Your task to perform on an android device: change notifications settings Image 0: 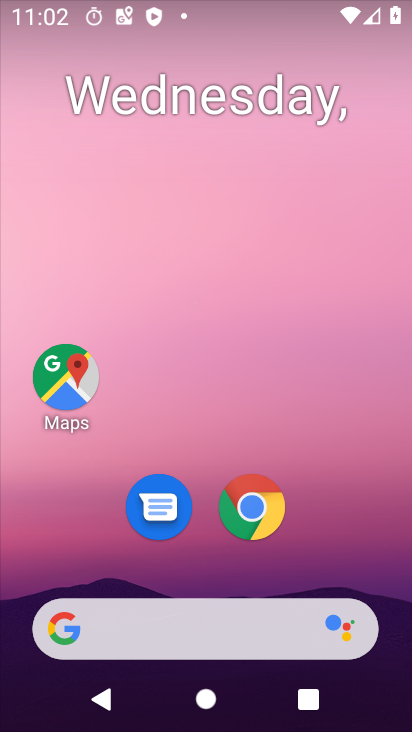
Step 0: drag from (234, 728) to (212, 68)
Your task to perform on an android device: change notifications settings Image 1: 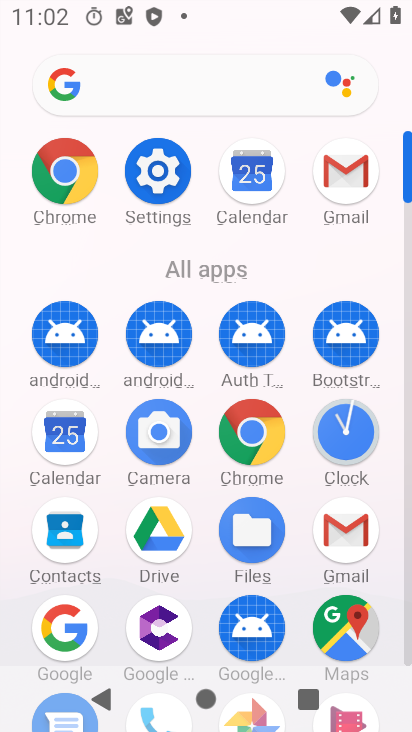
Step 1: click (163, 165)
Your task to perform on an android device: change notifications settings Image 2: 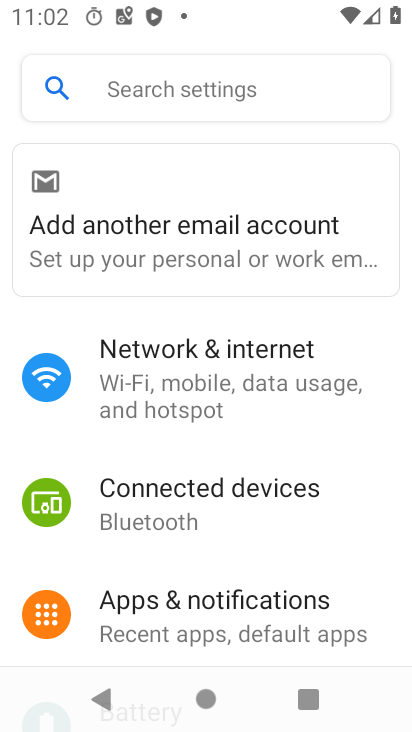
Step 2: click (180, 613)
Your task to perform on an android device: change notifications settings Image 3: 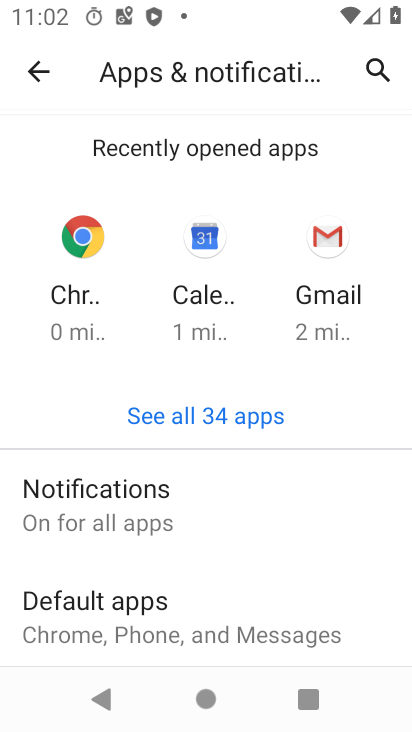
Step 3: click (111, 498)
Your task to perform on an android device: change notifications settings Image 4: 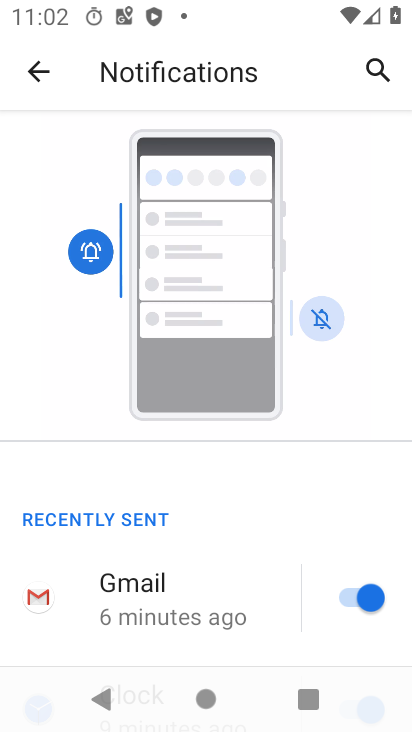
Step 4: drag from (176, 634) to (207, 263)
Your task to perform on an android device: change notifications settings Image 5: 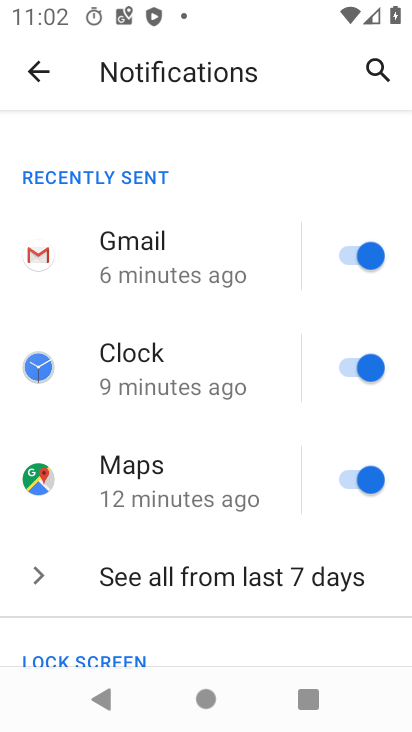
Step 5: drag from (190, 596) to (190, 270)
Your task to perform on an android device: change notifications settings Image 6: 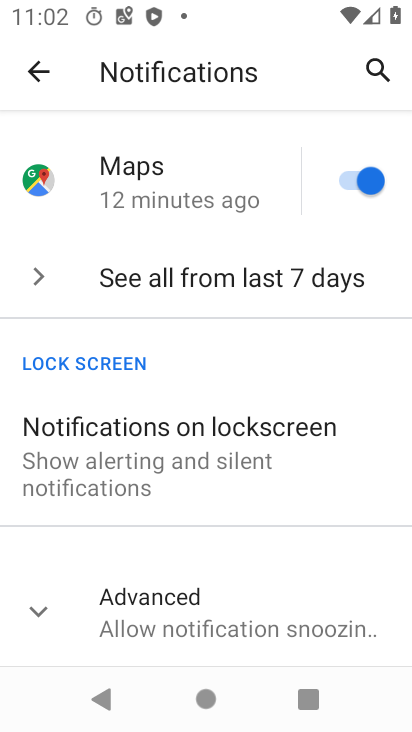
Step 6: click (142, 597)
Your task to perform on an android device: change notifications settings Image 7: 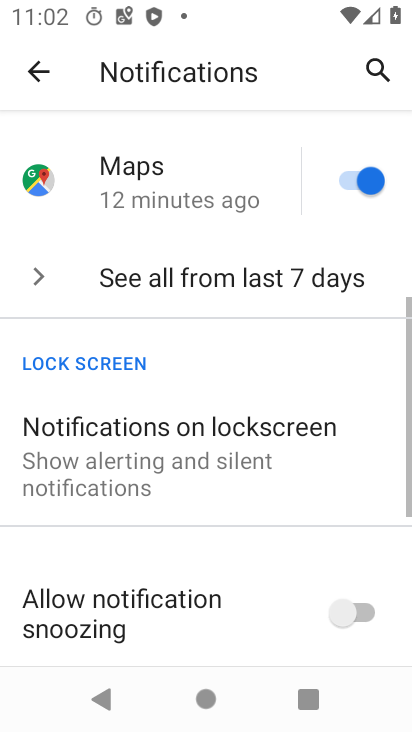
Step 7: click (365, 613)
Your task to perform on an android device: change notifications settings Image 8: 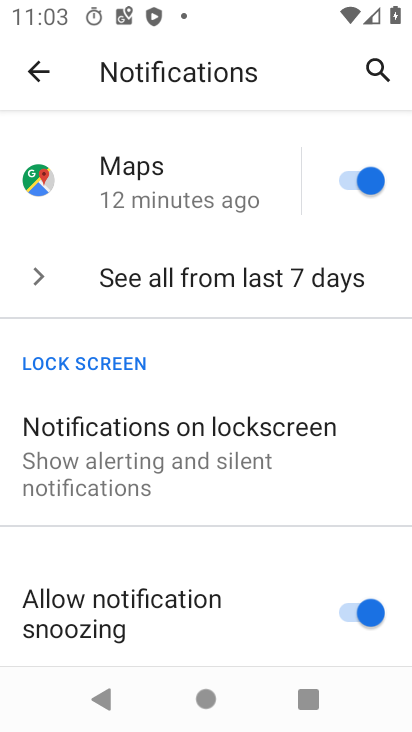
Step 8: task complete